Your task to perform on an android device: allow notifications from all sites in the chrome app Image 0: 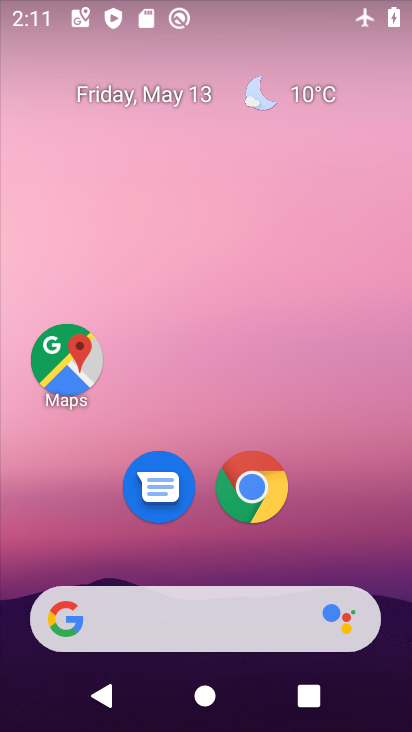
Step 0: drag from (195, 531) to (190, 180)
Your task to perform on an android device: allow notifications from all sites in the chrome app Image 1: 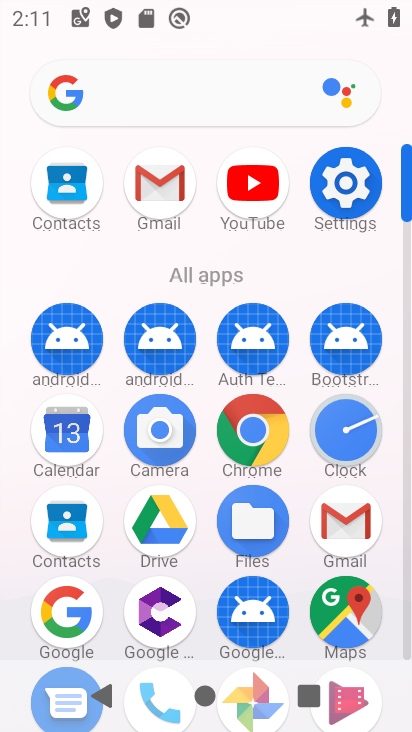
Step 1: click (349, 181)
Your task to perform on an android device: allow notifications from all sites in the chrome app Image 2: 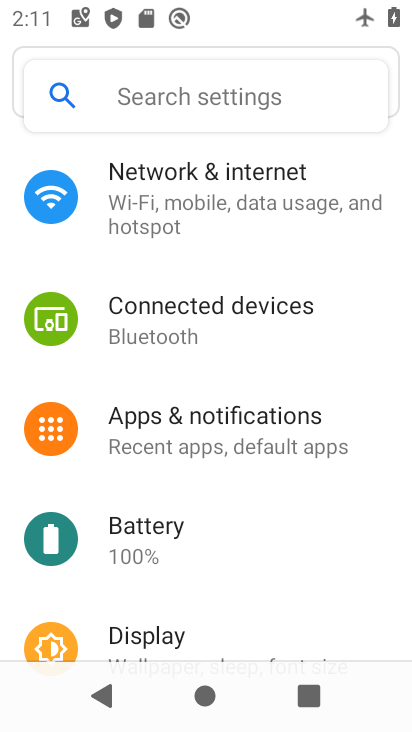
Step 2: press home button
Your task to perform on an android device: allow notifications from all sites in the chrome app Image 3: 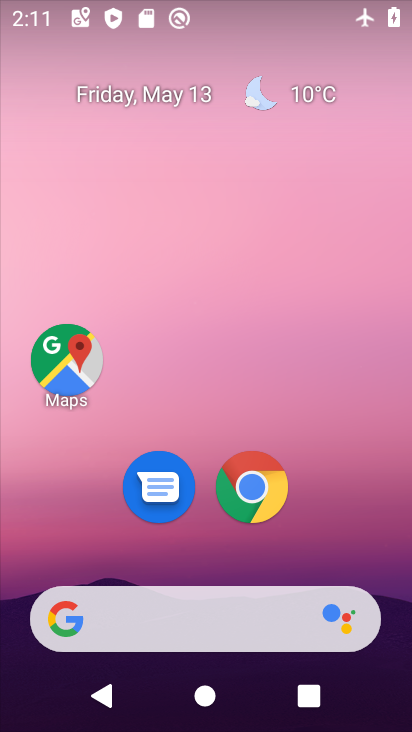
Step 3: click (258, 486)
Your task to perform on an android device: allow notifications from all sites in the chrome app Image 4: 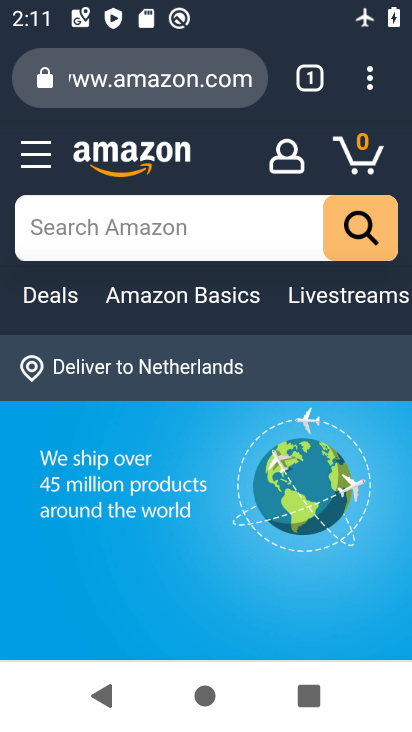
Step 4: click (369, 76)
Your task to perform on an android device: allow notifications from all sites in the chrome app Image 5: 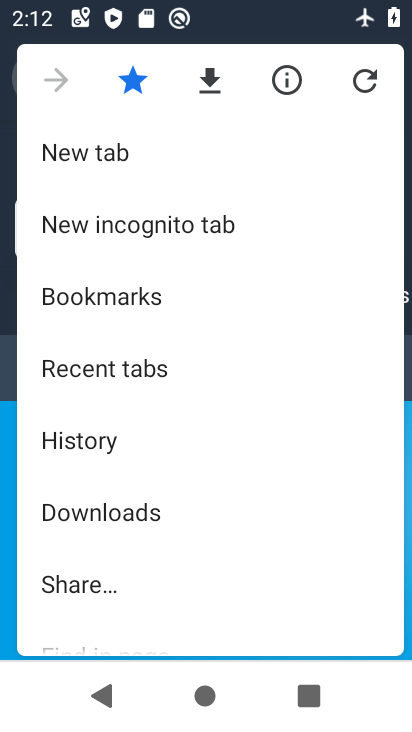
Step 5: drag from (180, 572) to (206, 192)
Your task to perform on an android device: allow notifications from all sites in the chrome app Image 6: 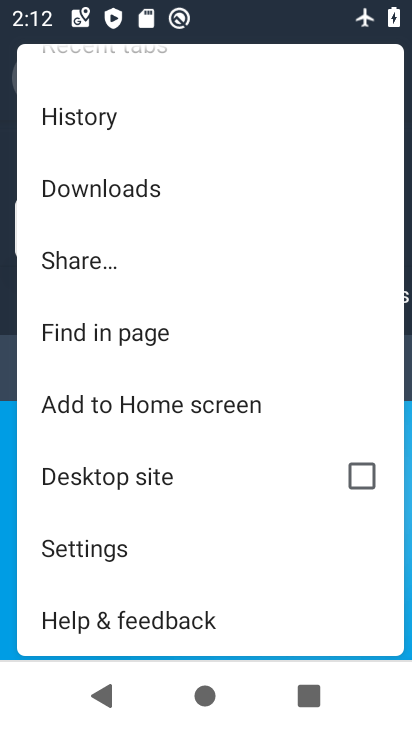
Step 6: click (93, 546)
Your task to perform on an android device: allow notifications from all sites in the chrome app Image 7: 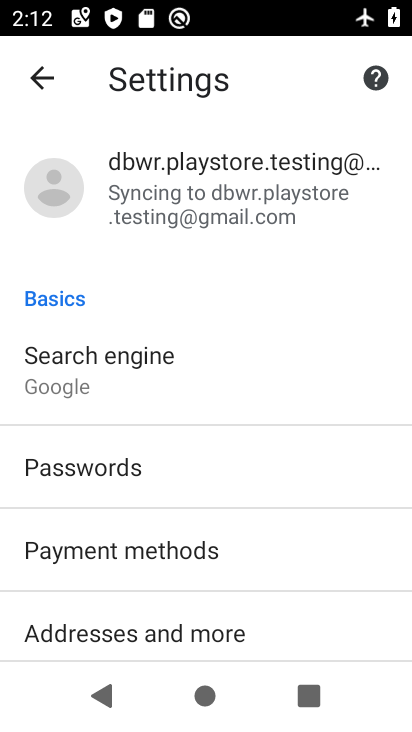
Step 7: drag from (97, 500) to (144, 171)
Your task to perform on an android device: allow notifications from all sites in the chrome app Image 8: 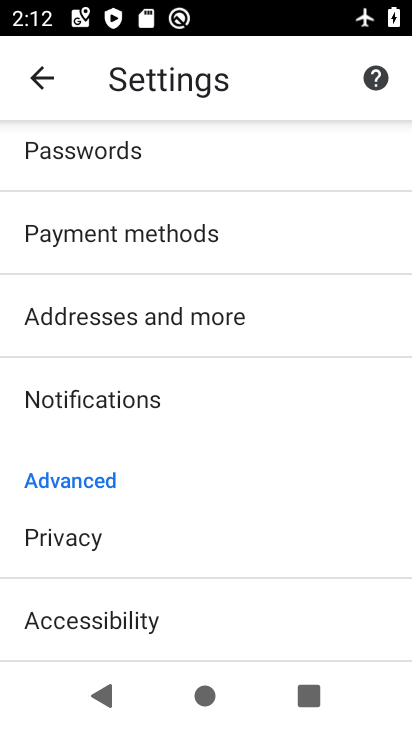
Step 8: drag from (206, 507) to (265, 173)
Your task to perform on an android device: allow notifications from all sites in the chrome app Image 9: 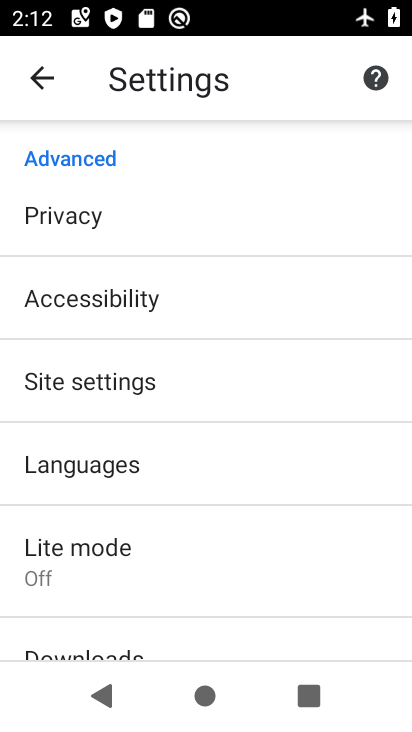
Step 9: drag from (191, 464) to (311, 561)
Your task to perform on an android device: allow notifications from all sites in the chrome app Image 10: 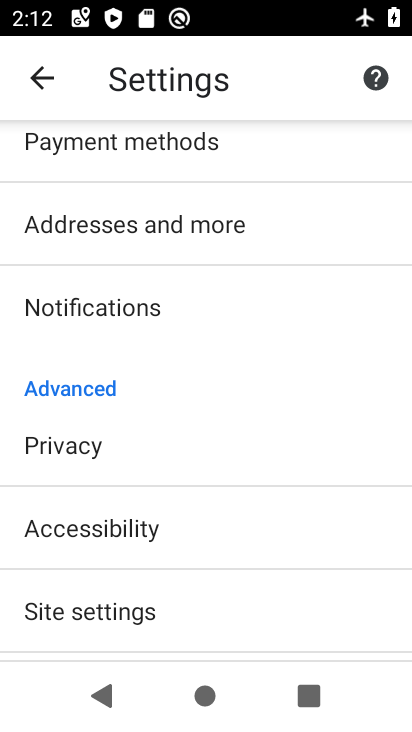
Step 10: click (132, 284)
Your task to perform on an android device: allow notifications from all sites in the chrome app Image 11: 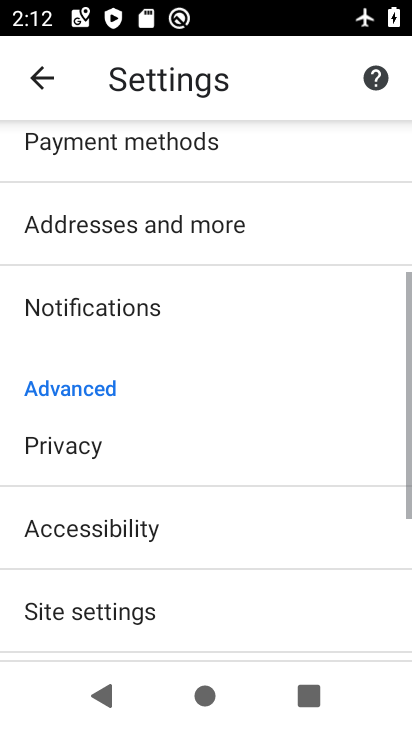
Step 11: click (132, 298)
Your task to perform on an android device: allow notifications from all sites in the chrome app Image 12: 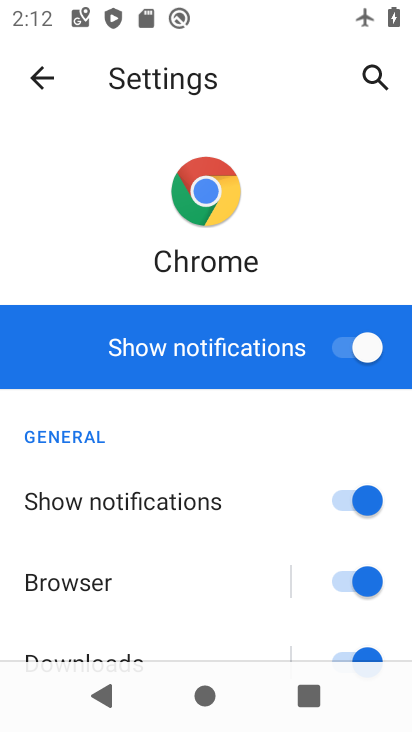
Step 12: task complete